Your task to perform on an android device: Go to Google maps Image 0: 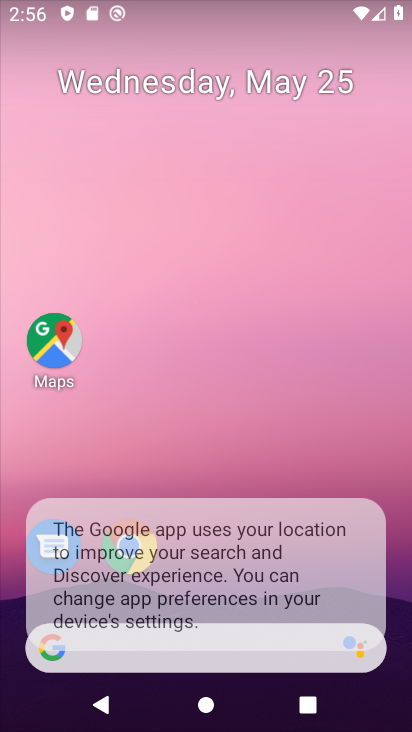
Step 0: click (70, 331)
Your task to perform on an android device: Go to Google maps Image 1: 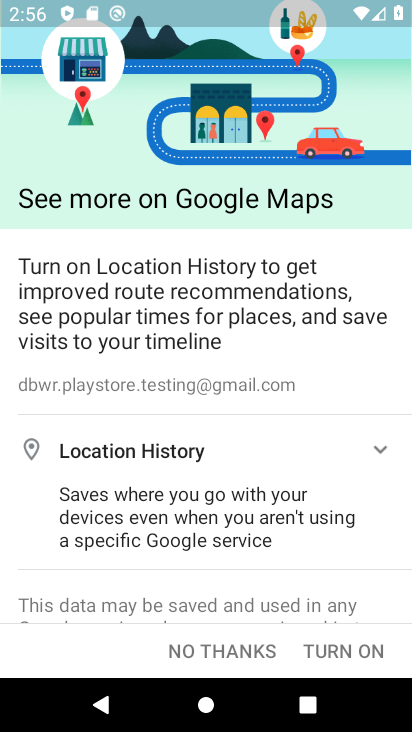
Step 1: task complete